Your task to perform on an android device: snooze an email in the gmail app Image 0: 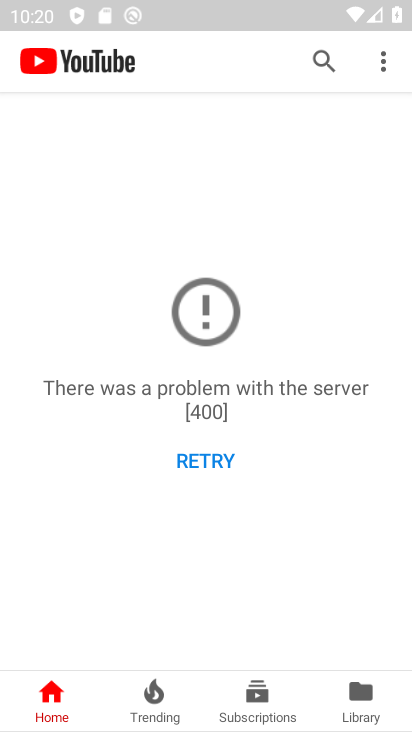
Step 0: press home button
Your task to perform on an android device: snooze an email in the gmail app Image 1: 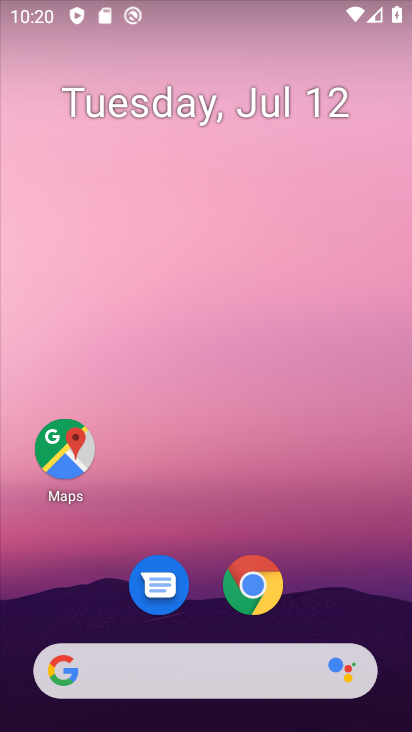
Step 1: drag from (329, 567) to (276, 29)
Your task to perform on an android device: snooze an email in the gmail app Image 2: 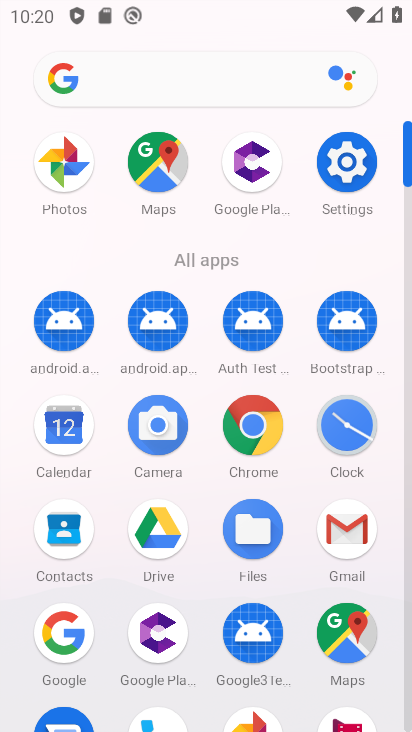
Step 2: click (339, 522)
Your task to perform on an android device: snooze an email in the gmail app Image 3: 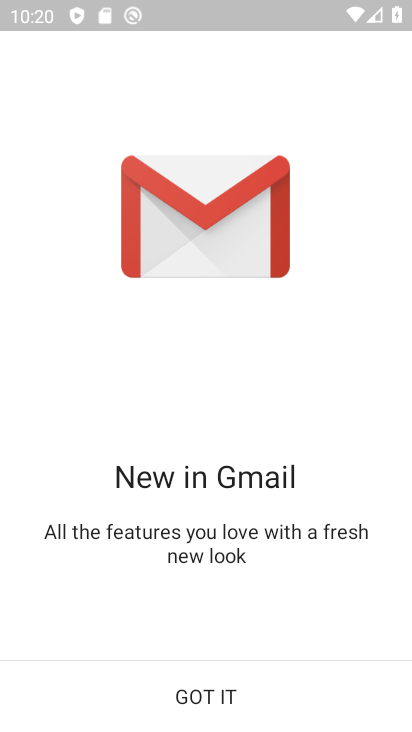
Step 3: click (216, 691)
Your task to perform on an android device: snooze an email in the gmail app Image 4: 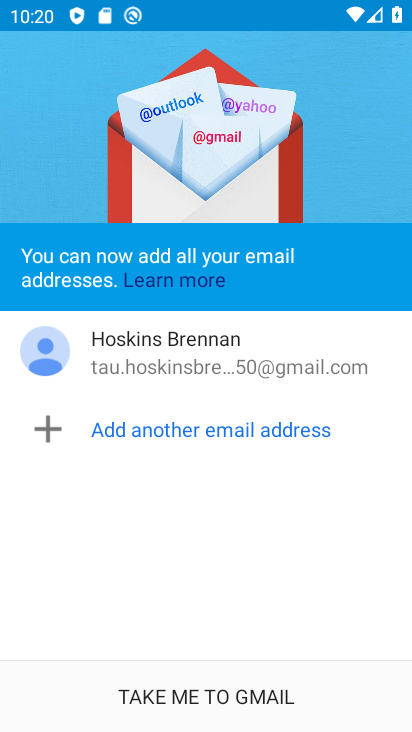
Step 4: click (216, 691)
Your task to perform on an android device: snooze an email in the gmail app Image 5: 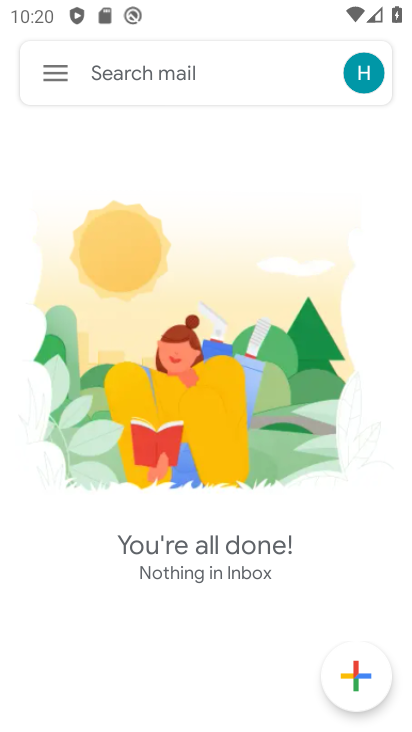
Step 5: click (53, 62)
Your task to perform on an android device: snooze an email in the gmail app Image 6: 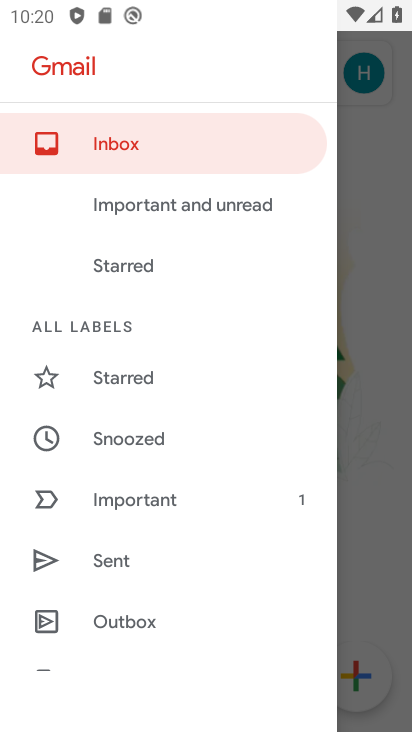
Step 6: drag from (187, 536) to (196, 105)
Your task to perform on an android device: snooze an email in the gmail app Image 7: 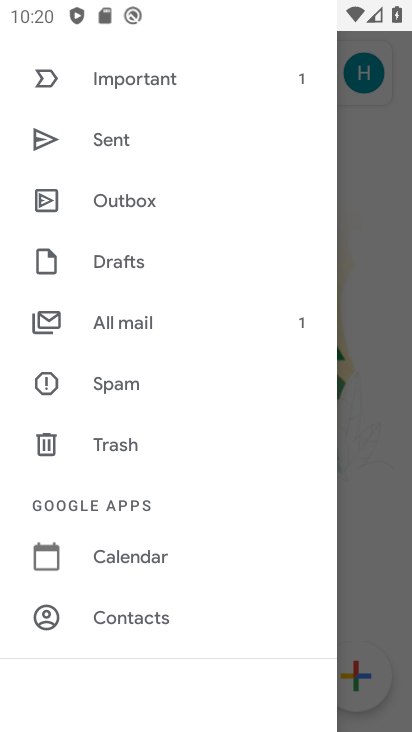
Step 7: click (167, 317)
Your task to perform on an android device: snooze an email in the gmail app Image 8: 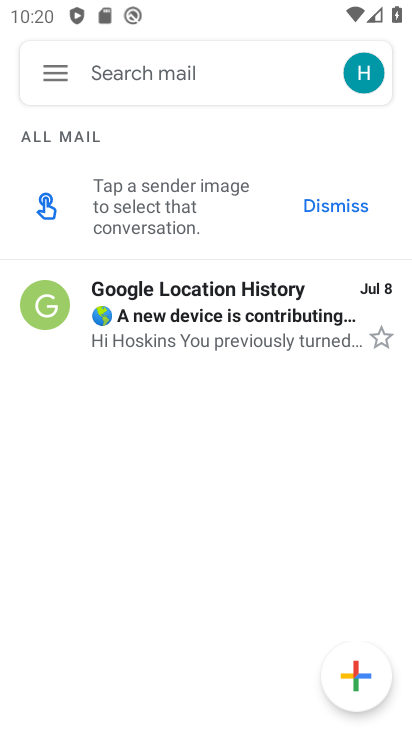
Step 8: click (235, 312)
Your task to perform on an android device: snooze an email in the gmail app Image 9: 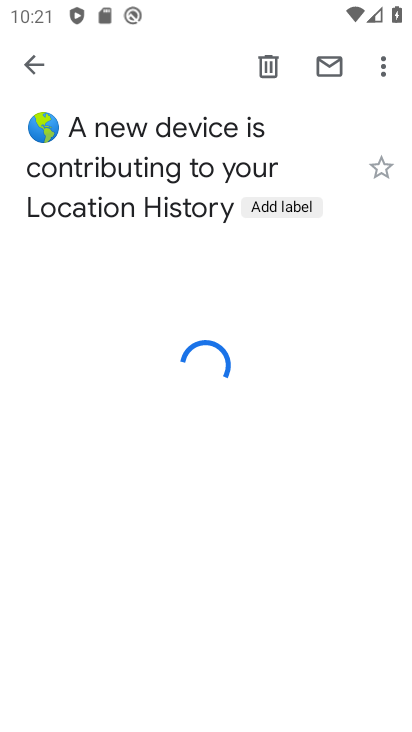
Step 9: click (380, 66)
Your task to perform on an android device: snooze an email in the gmail app Image 10: 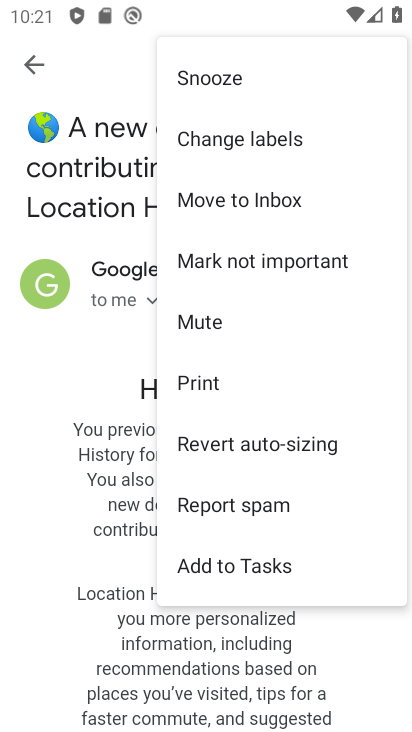
Step 10: click (237, 72)
Your task to perform on an android device: snooze an email in the gmail app Image 11: 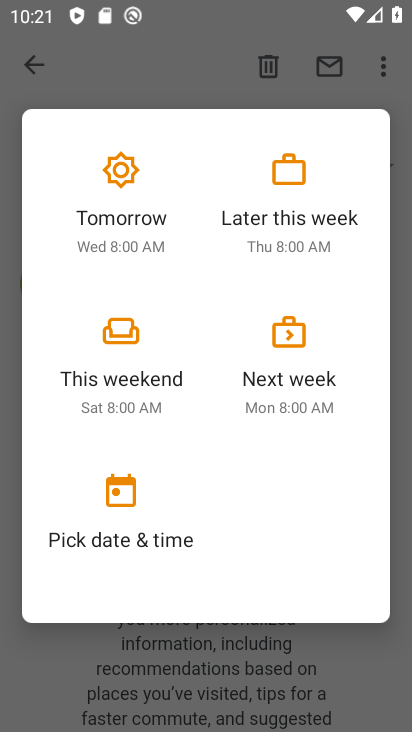
Step 11: click (150, 206)
Your task to perform on an android device: snooze an email in the gmail app Image 12: 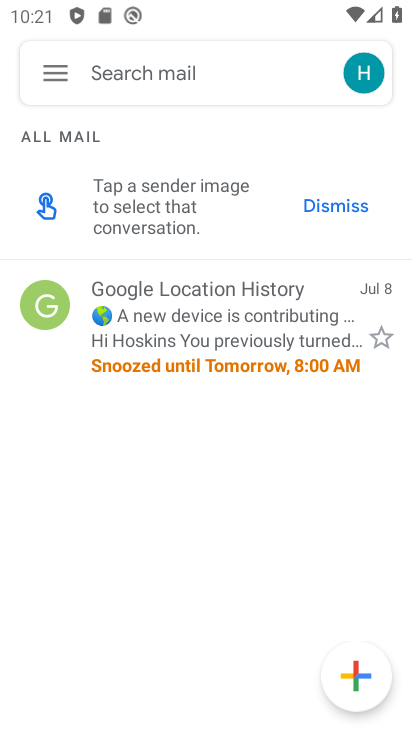
Step 12: task complete